Your task to perform on an android device: open app "Cash App" (install if not already installed) Image 0: 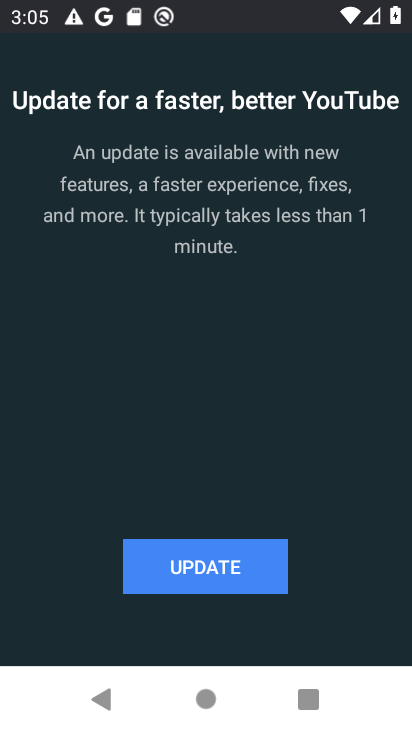
Step 0: press home button
Your task to perform on an android device: open app "Cash App" (install if not already installed) Image 1: 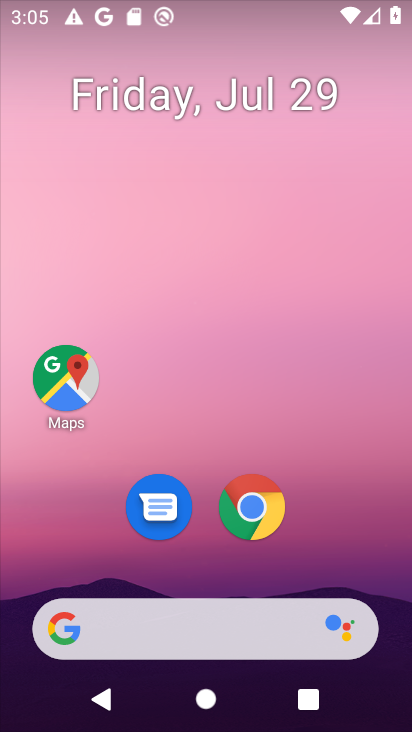
Step 1: click (170, 648)
Your task to perform on an android device: open app "Cash App" (install if not already installed) Image 2: 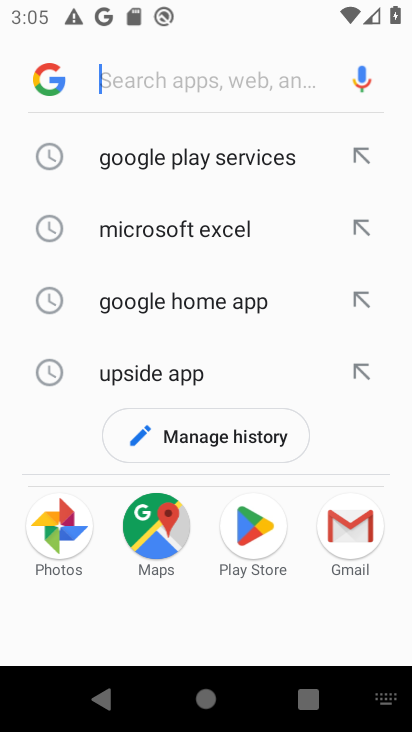
Step 2: type "cash app"
Your task to perform on an android device: open app "Cash App" (install if not already installed) Image 3: 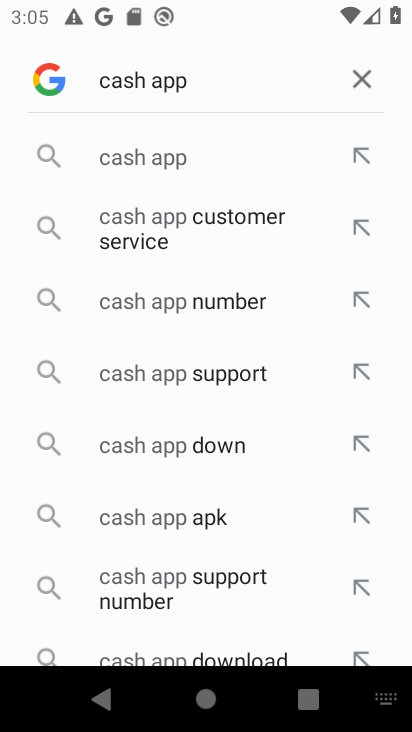
Step 3: click (242, 163)
Your task to perform on an android device: open app "Cash App" (install if not already installed) Image 4: 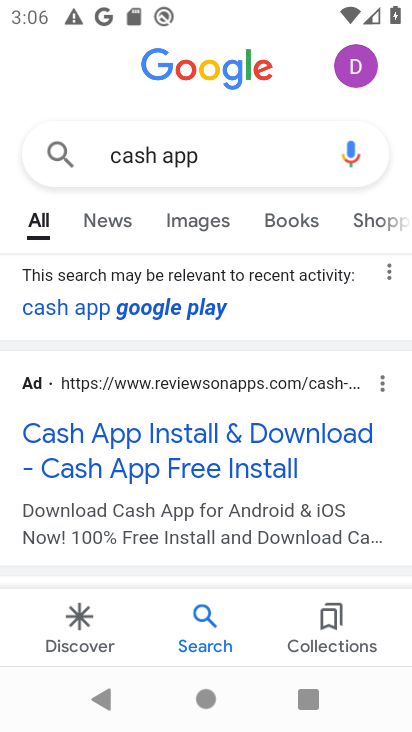
Step 4: click (252, 466)
Your task to perform on an android device: open app "Cash App" (install if not already installed) Image 5: 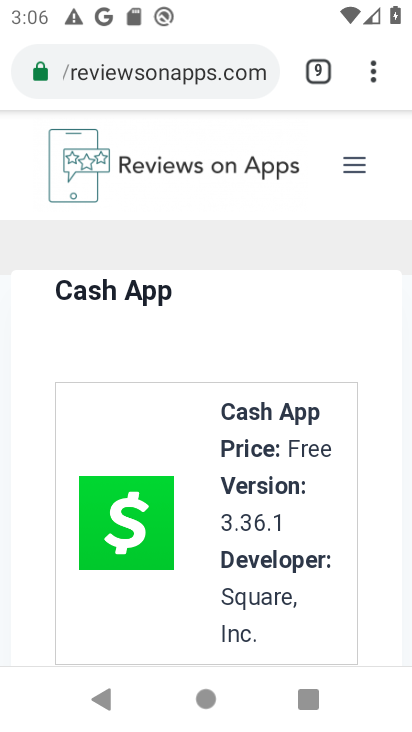
Step 5: task complete